Your task to perform on an android device: set an alarm Image 0: 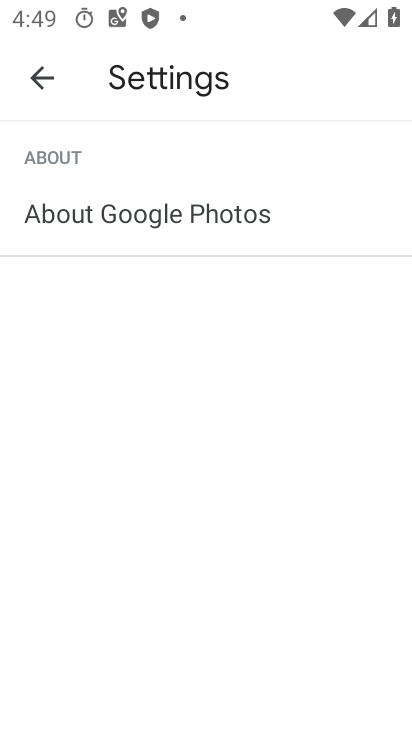
Step 0: press home button
Your task to perform on an android device: set an alarm Image 1: 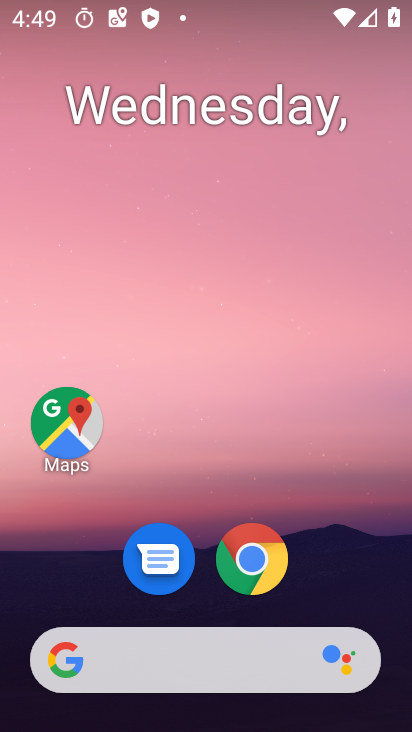
Step 1: drag from (366, 586) to (264, 148)
Your task to perform on an android device: set an alarm Image 2: 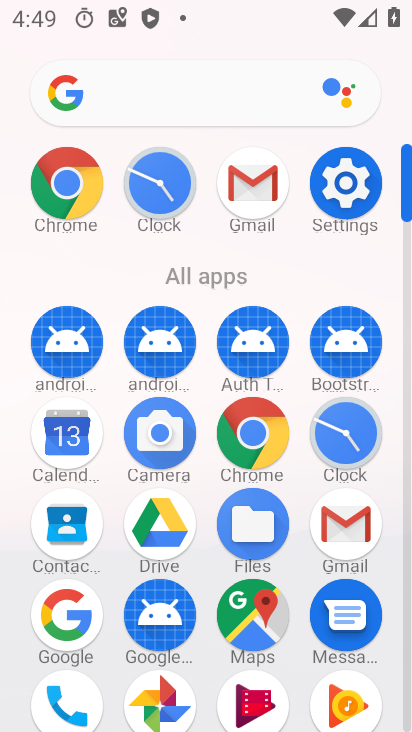
Step 2: click (167, 194)
Your task to perform on an android device: set an alarm Image 3: 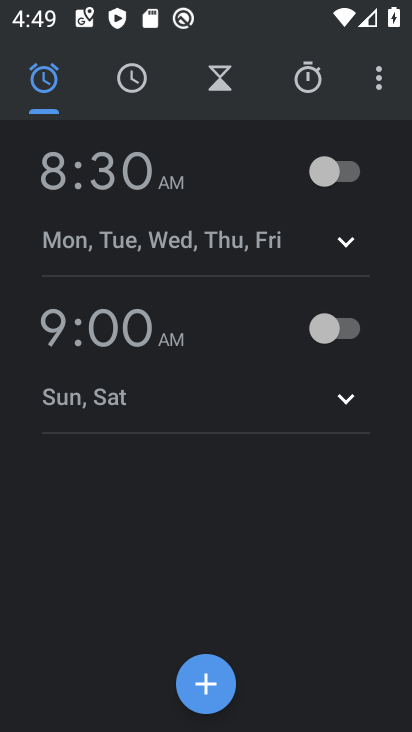
Step 3: click (224, 681)
Your task to perform on an android device: set an alarm Image 4: 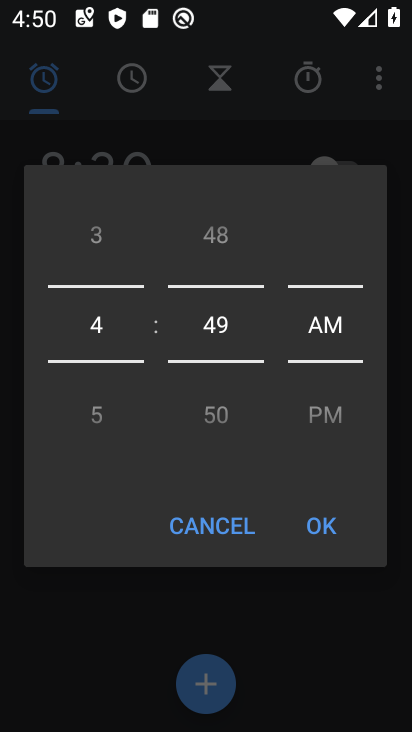
Step 4: click (315, 545)
Your task to perform on an android device: set an alarm Image 5: 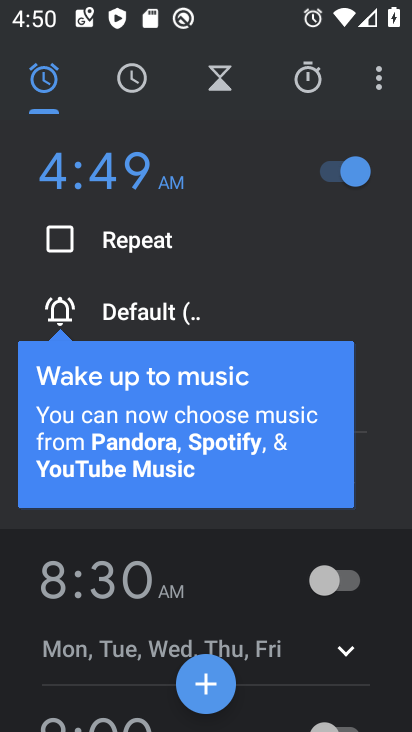
Step 5: task complete